Your task to perform on an android device: turn on the 12-hour format for clock Image 0: 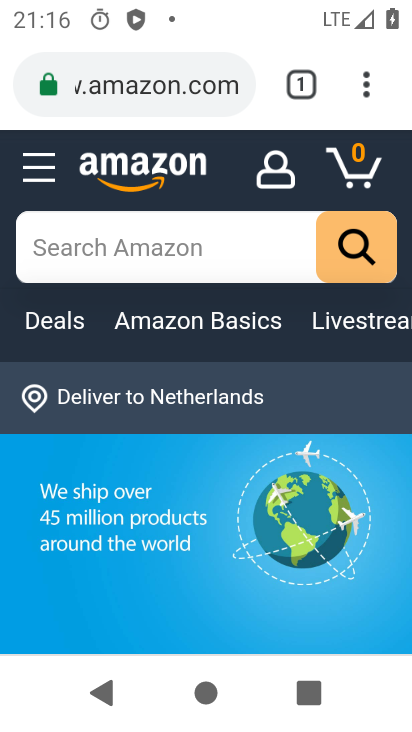
Step 0: press home button
Your task to perform on an android device: turn on the 12-hour format for clock Image 1: 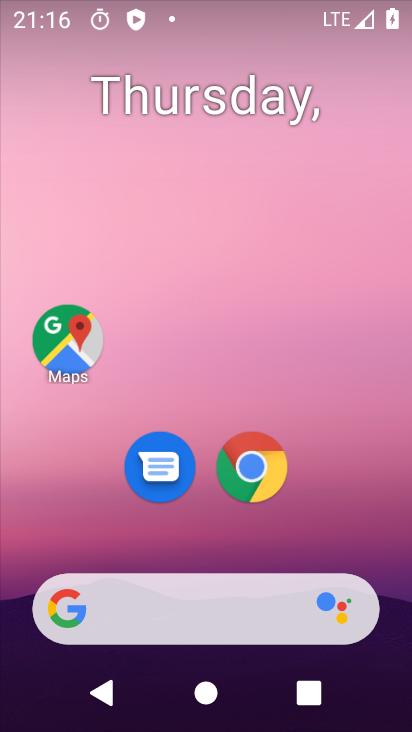
Step 1: drag from (348, 465) to (303, 54)
Your task to perform on an android device: turn on the 12-hour format for clock Image 2: 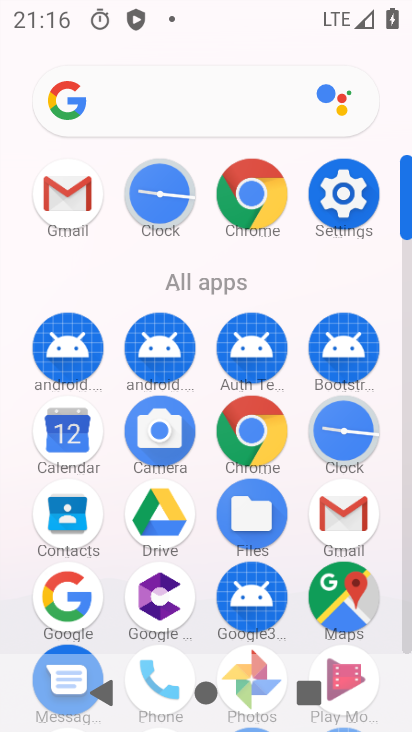
Step 2: click (344, 439)
Your task to perform on an android device: turn on the 12-hour format for clock Image 3: 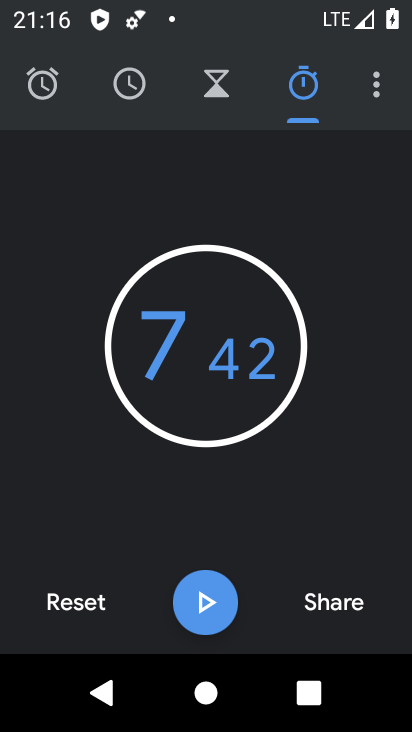
Step 3: click (375, 82)
Your task to perform on an android device: turn on the 12-hour format for clock Image 4: 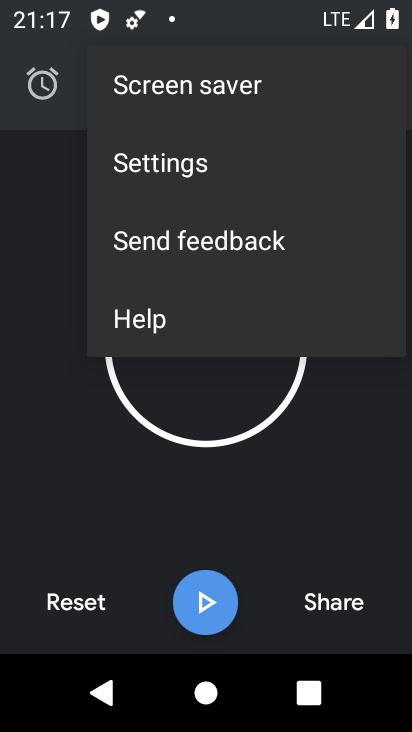
Step 4: click (163, 169)
Your task to perform on an android device: turn on the 12-hour format for clock Image 5: 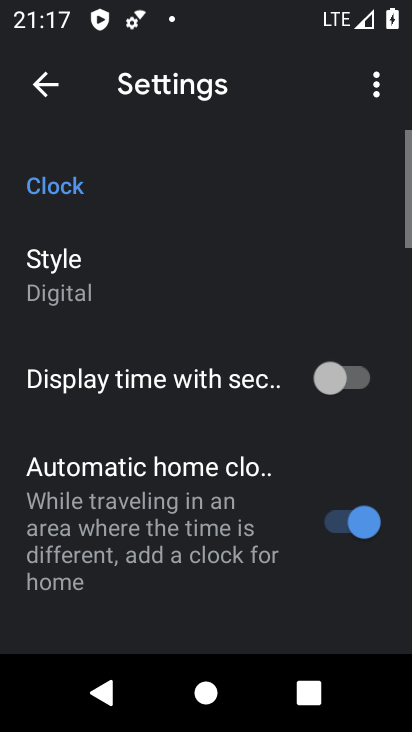
Step 5: drag from (237, 535) to (232, 121)
Your task to perform on an android device: turn on the 12-hour format for clock Image 6: 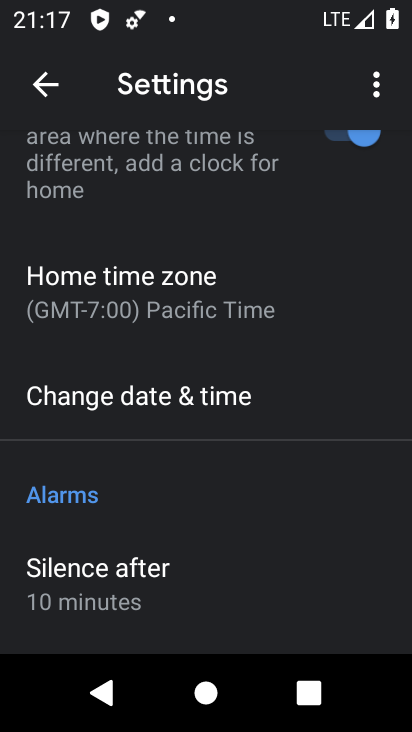
Step 6: click (198, 412)
Your task to perform on an android device: turn on the 12-hour format for clock Image 7: 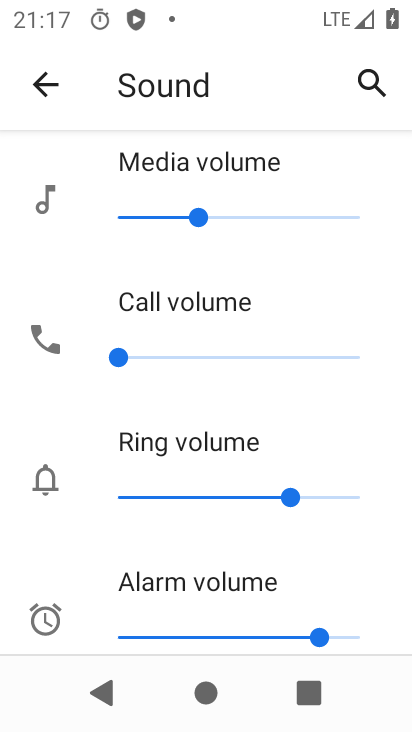
Step 7: click (41, 86)
Your task to perform on an android device: turn on the 12-hour format for clock Image 8: 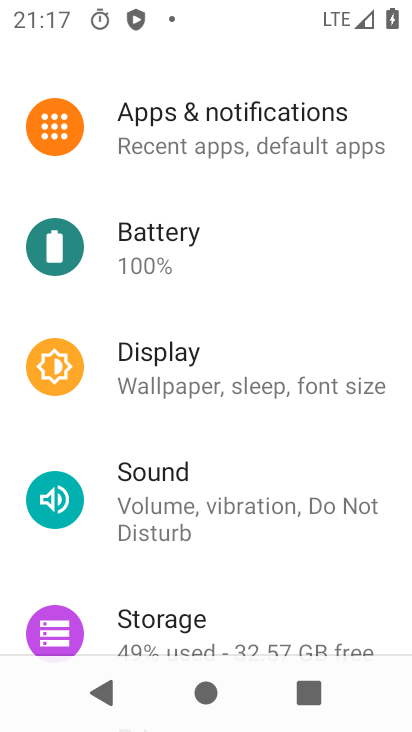
Step 8: press back button
Your task to perform on an android device: turn on the 12-hour format for clock Image 9: 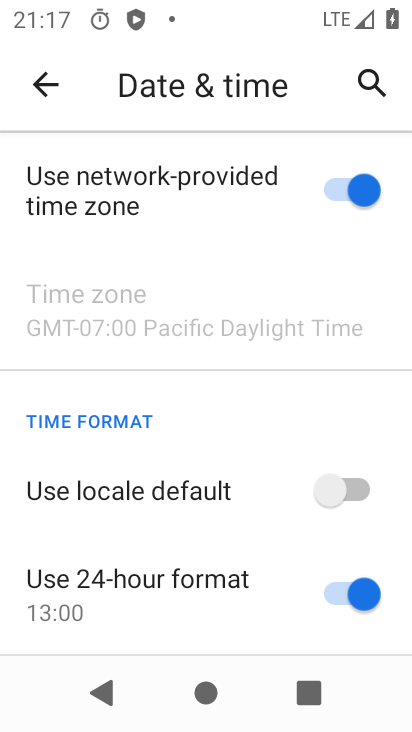
Step 9: click (361, 497)
Your task to perform on an android device: turn on the 12-hour format for clock Image 10: 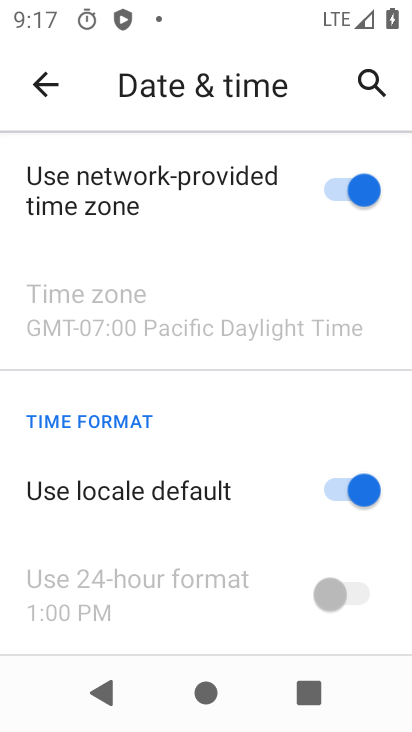
Step 10: task complete